Your task to perform on an android device: delete the emails in spam in the gmail app Image 0: 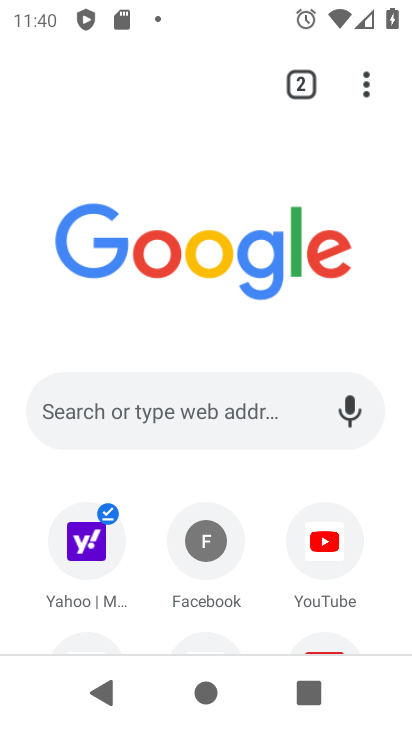
Step 0: press home button
Your task to perform on an android device: delete the emails in spam in the gmail app Image 1: 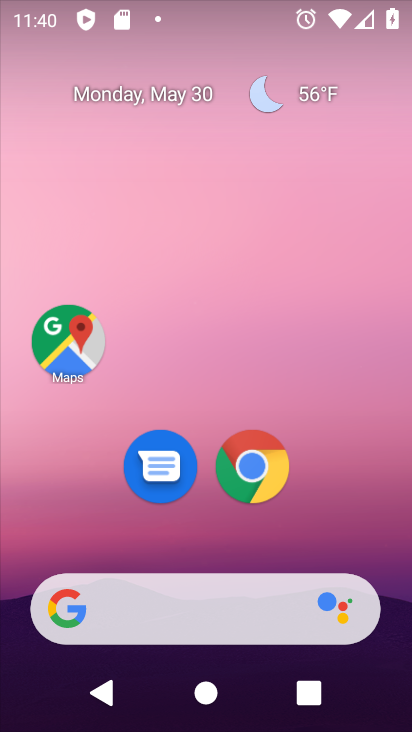
Step 1: drag from (183, 590) to (211, 109)
Your task to perform on an android device: delete the emails in spam in the gmail app Image 2: 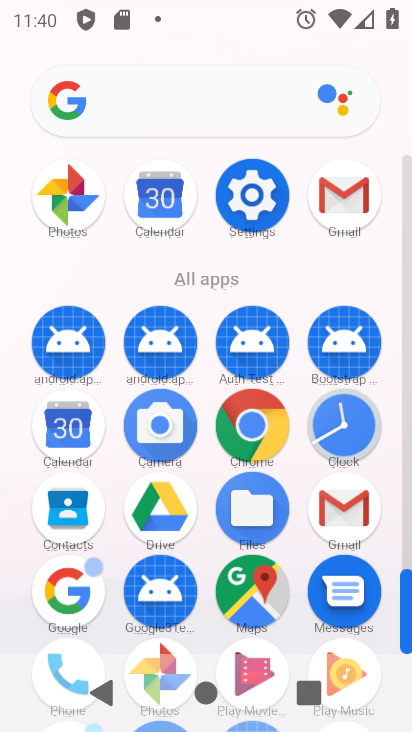
Step 2: click (328, 194)
Your task to perform on an android device: delete the emails in spam in the gmail app Image 3: 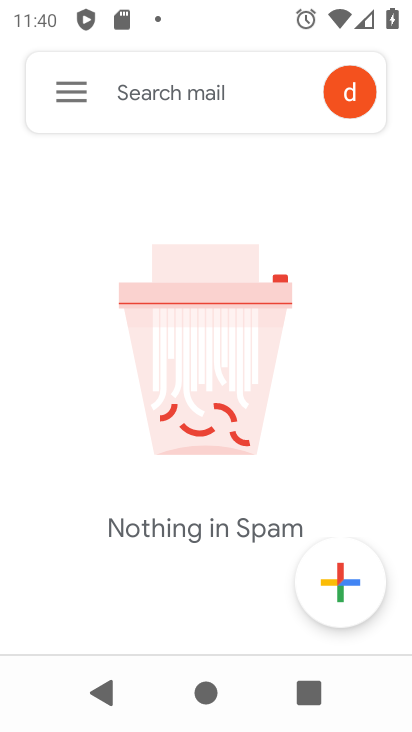
Step 3: task complete